Your task to perform on an android device: What is the recent news? Image 0: 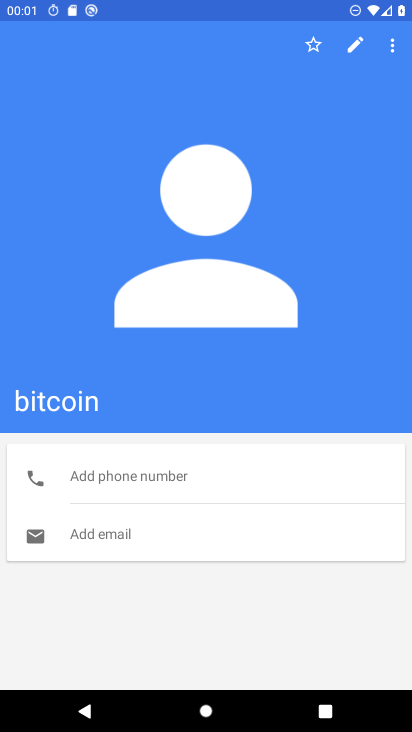
Step 0: press home button
Your task to perform on an android device: What is the recent news? Image 1: 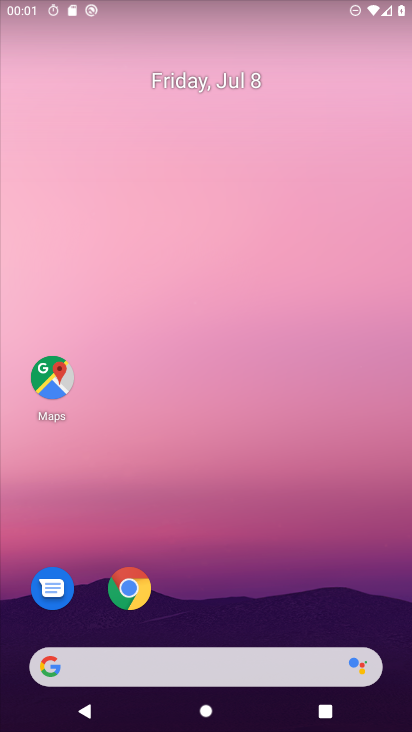
Step 1: drag from (275, 602) to (295, 60)
Your task to perform on an android device: What is the recent news? Image 2: 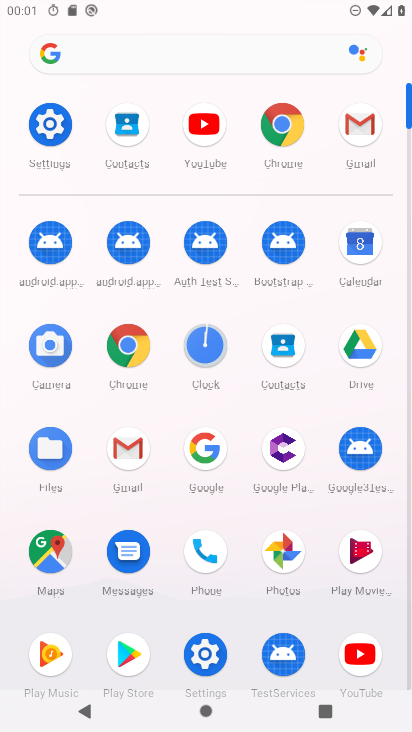
Step 2: click (131, 343)
Your task to perform on an android device: What is the recent news? Image 3: 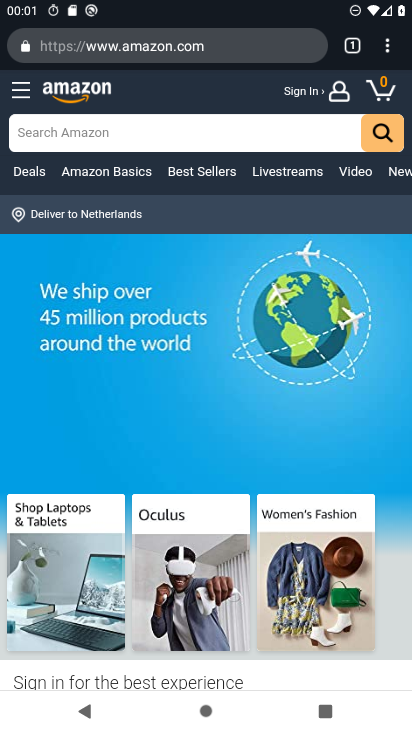
Step 3: click (170, 47)
Your task to perform on an android device: What is the recent news? Image 4: 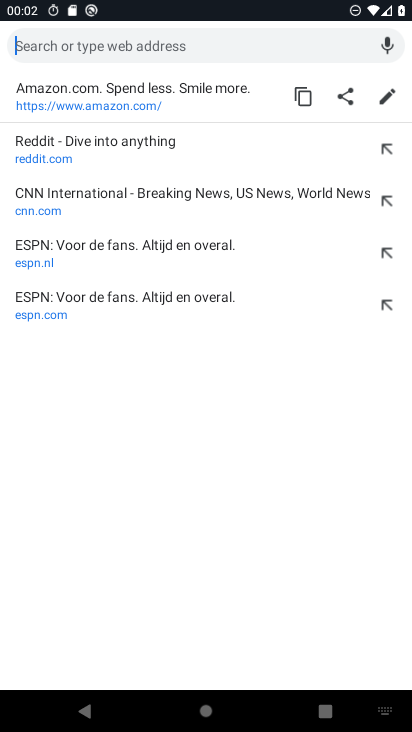
Step 4: type "news"
Your task to perform on an android device: What is the recent news? Image 5: 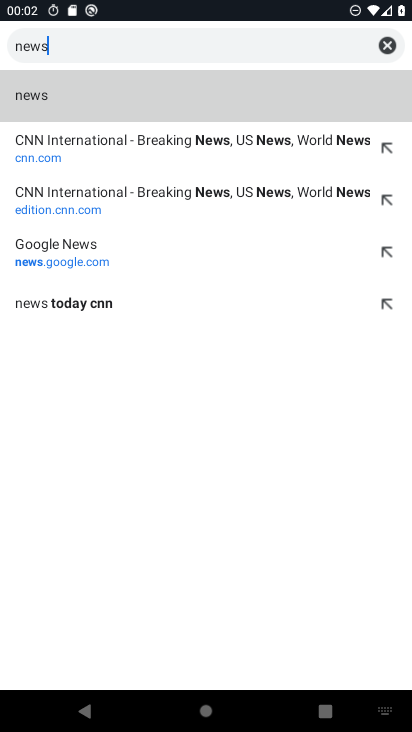
Step 5: click (28, 94)
Your task to perform on an android device: What is the recent news? Image 6: 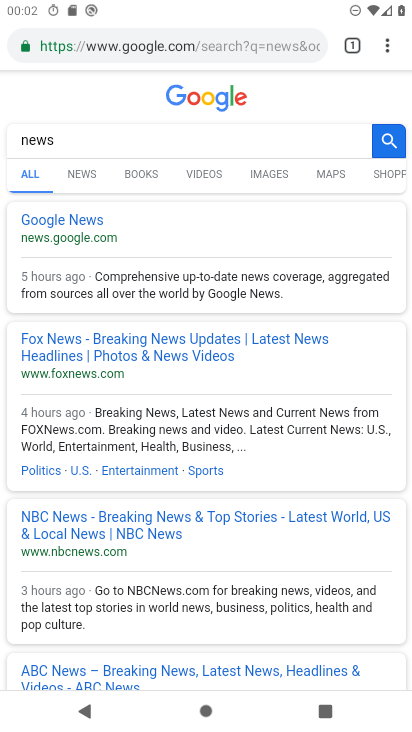
Step 6: click (92, 216)
Your task to perform on an android device: What is the recent news? Image 7: 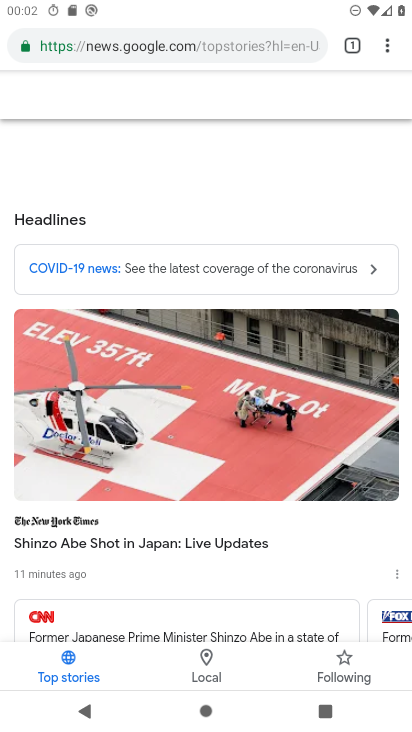
Step 7: task complete